Your task to perform on an android device: Open Amazon Image 0: 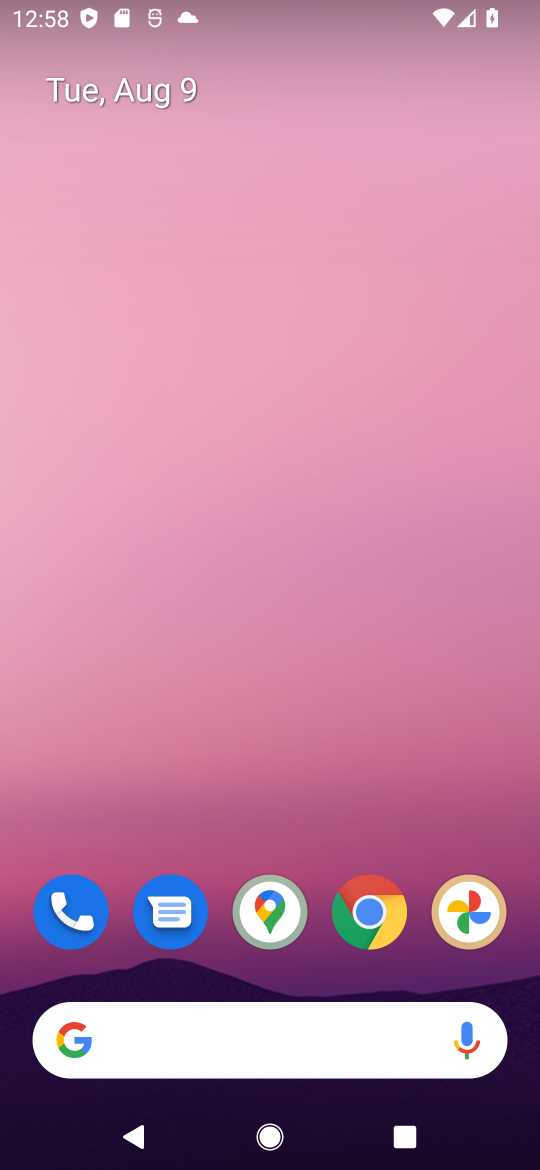
Step 0: drag from (252, 1009) to (381, 57)
Your task to perform on an android device: Open Amazon Image 1: 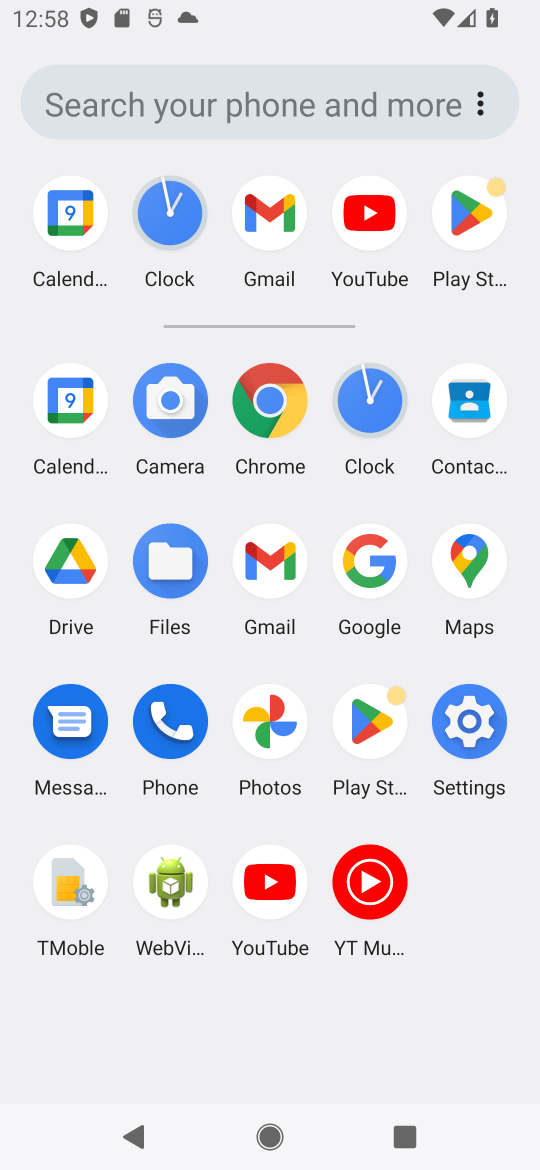
Step 1: click (359, 558)
Your task to perform on an android device: Open Amazon Image 2: 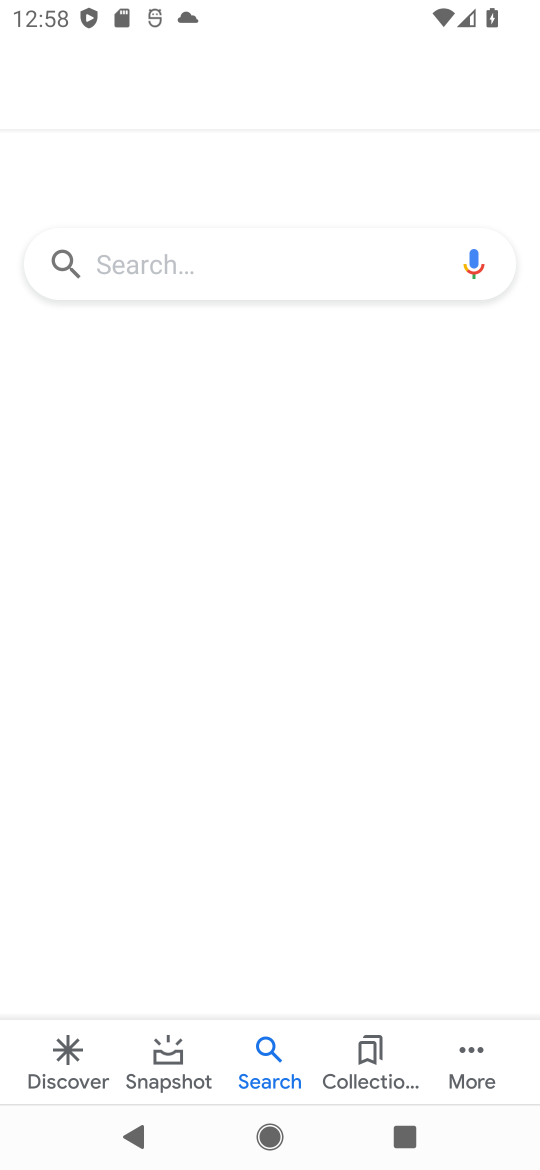
Step 2: click (149, 265)
Your task to perform on an android device: Open Amazon Image 3: 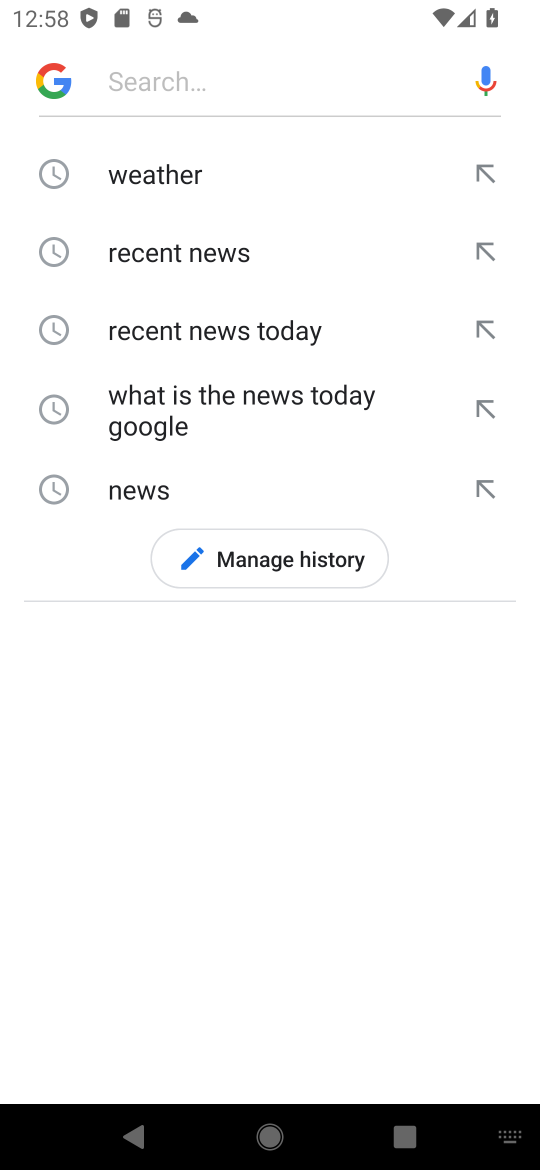
Step 3: type "Amazon"
Your task to perform on an android device: Open Amazon Image 4: 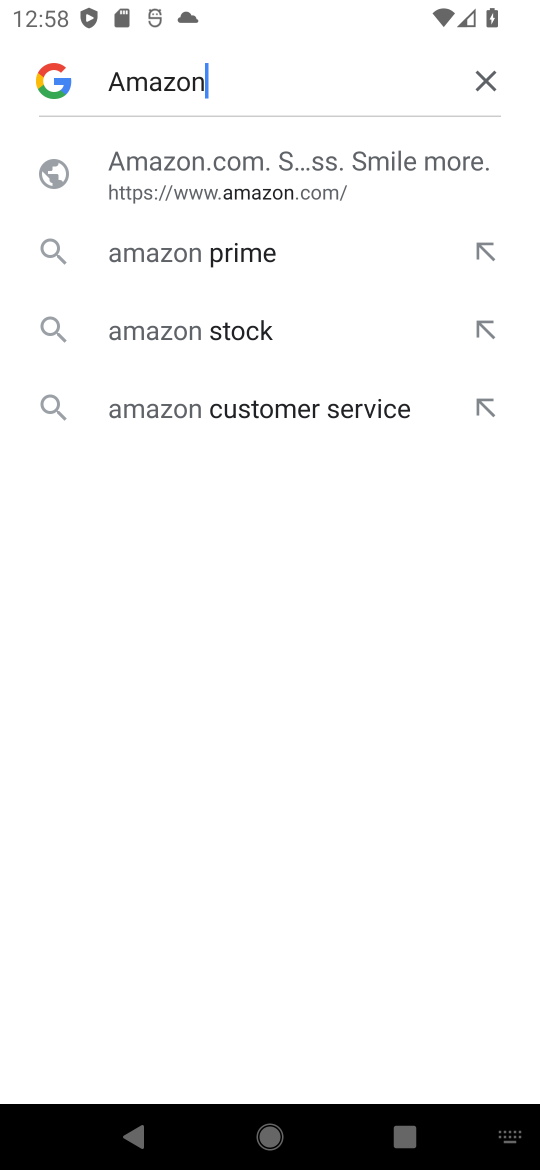
Step 4: click (280, 169)
Your task to perform on an android device: Open Amazon Image 5: 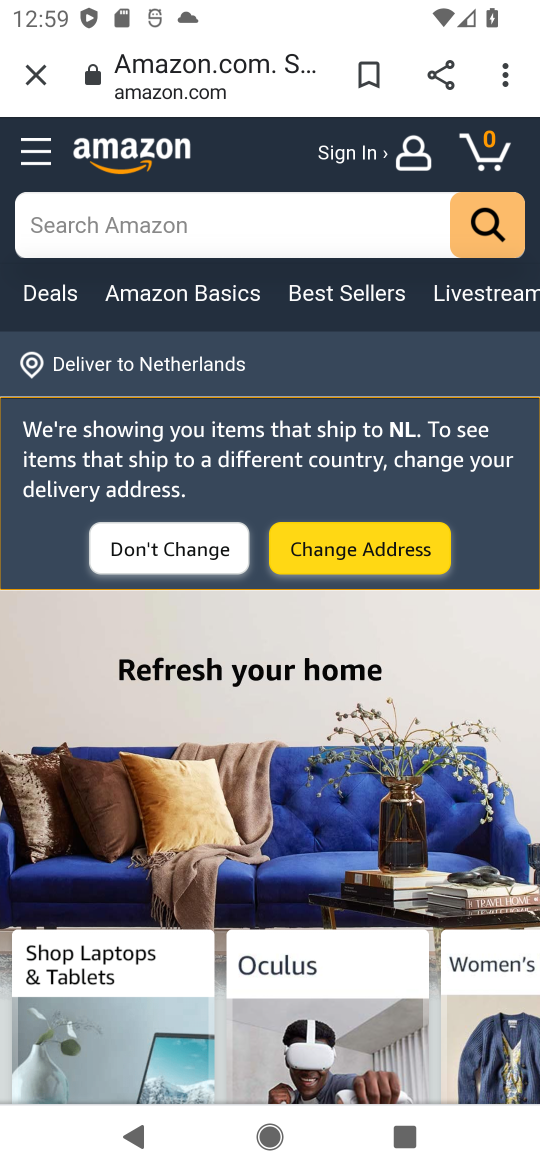
Step 5: task complete